Your task to perform on an android device: Open display settings Image 0: 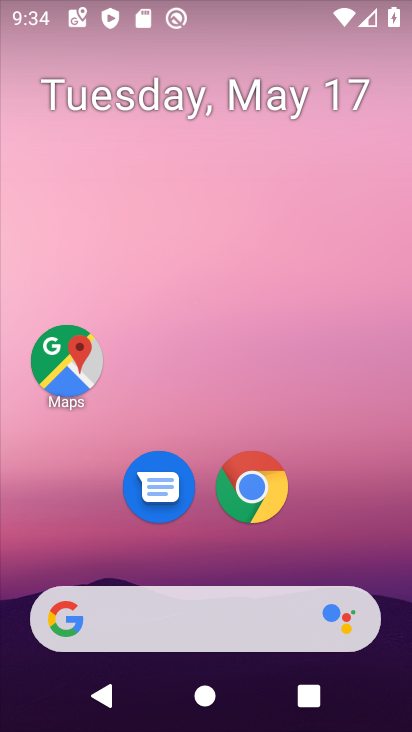
Step 0: press home button
Your task to perform on an android device: Open display settings Image 1: 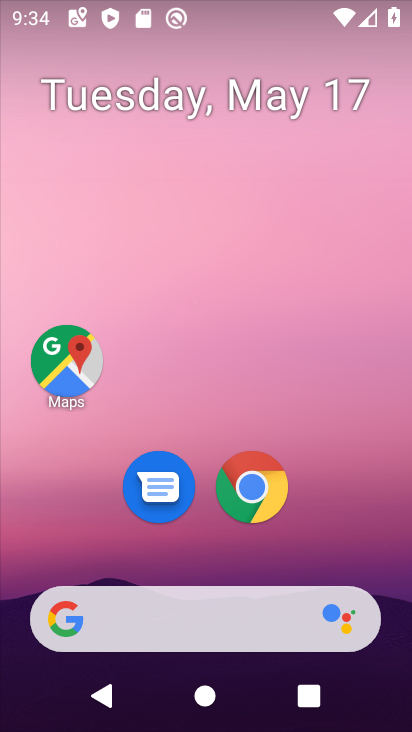
Step 1: drag from (270, 662) to (410, 269)
Your task to perform on an android device: Open display settings Image 2: 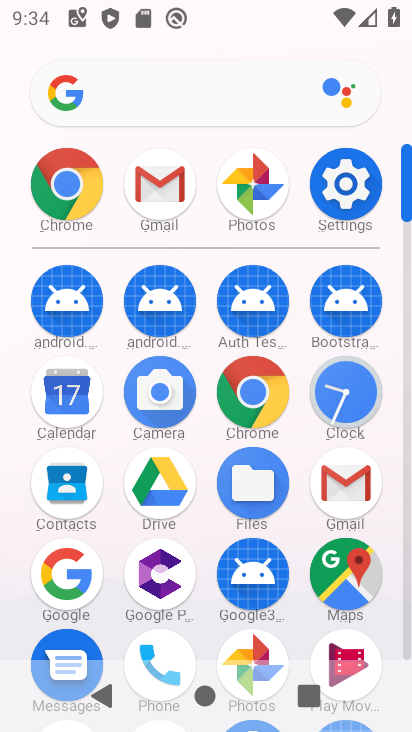
Step 2: drag from (213, 491) to (272, 297)
Your task to perform on an android device: Open display settings Image 3: 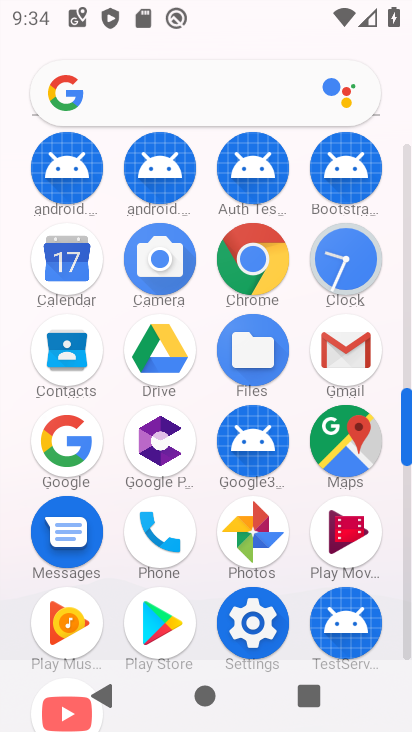
Step 3: click (282, 624)
Your task to perform on an android device: Open display settings Image 4: 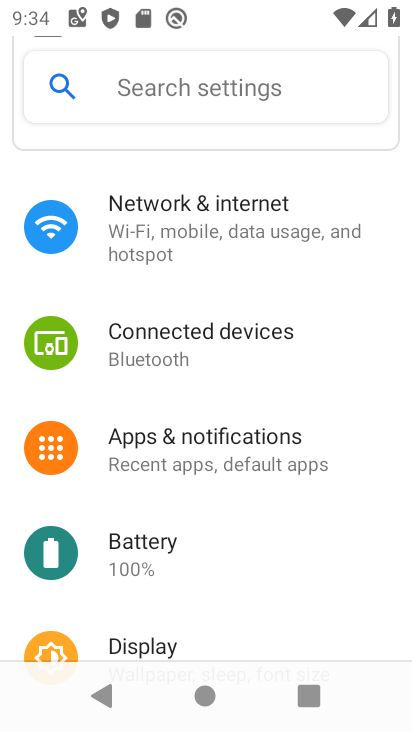
Step 4: click (168, 634)
Your task to perform on an android device: Open display settings Image 5: 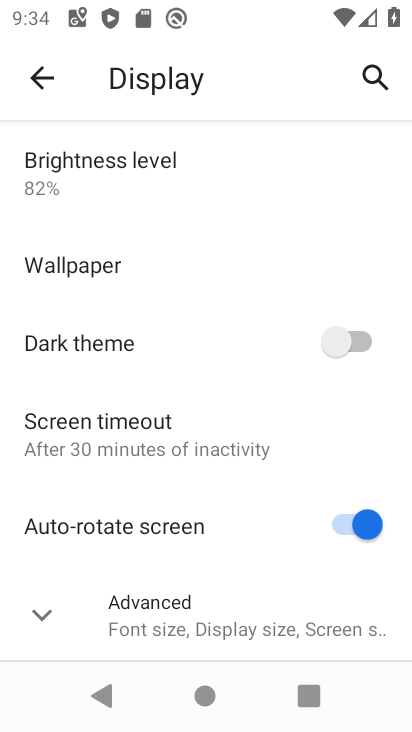
Step 5: task complete